Your task to perform on an android device: Open calendar and show me the first week of next month Image 0: 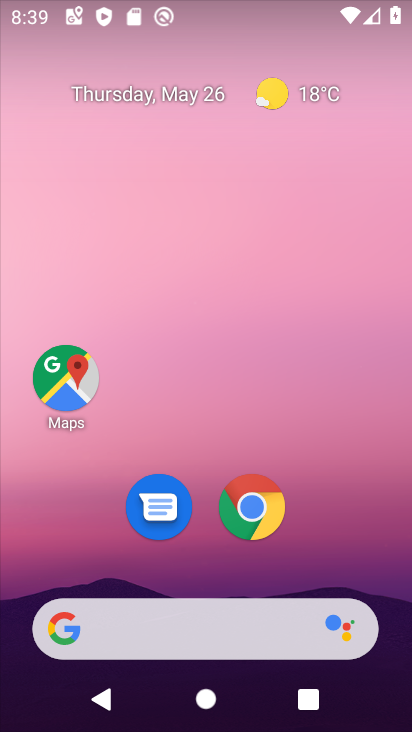
Step 0: drag from (265, 673) to (178, 204)
Your task to perform on an android device: Open calendar and show me the first week of next month Image 1: 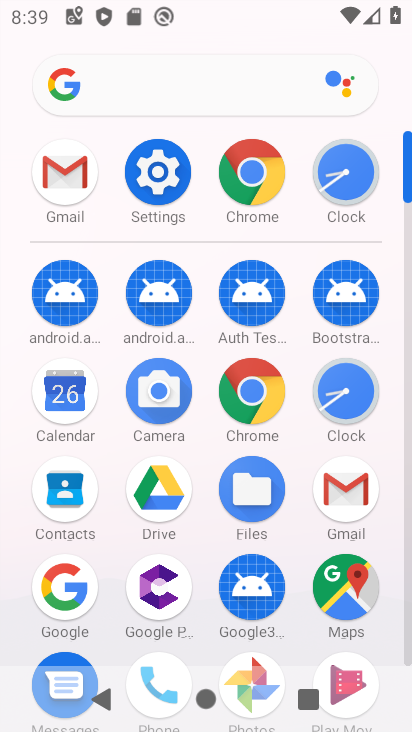
Step 1: click (63, 391)
Your task to perform on an android device: Open calendar and show me the first week of next month Image 2: 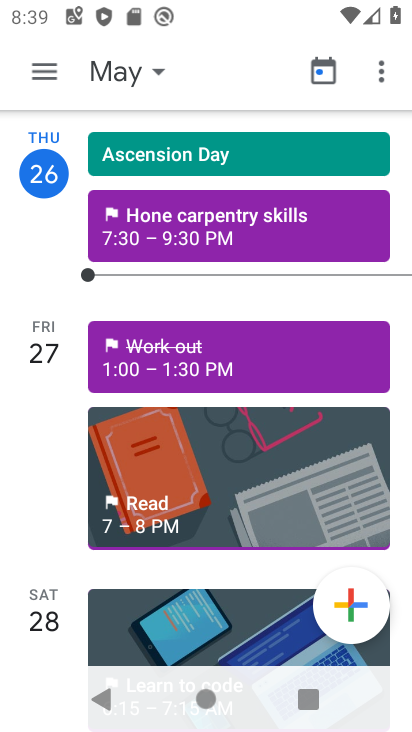
Step 2: click (33, 71)
Your task to perform on an android device: Open calendar and show me the first week of next month Image 3: 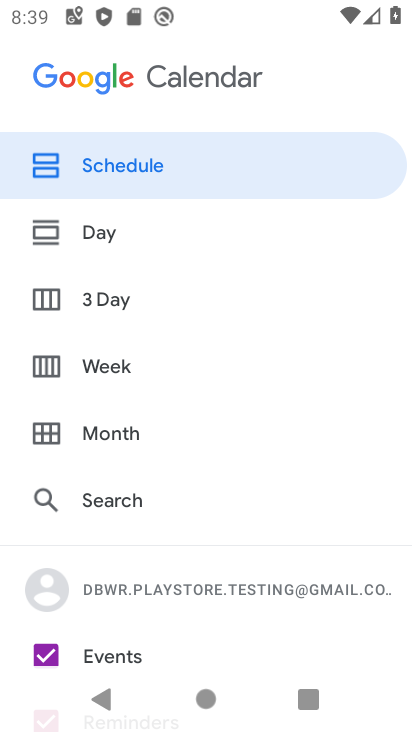
Step 3: click (141, 433)
Your task to perform on an android device: Open calendar and show me the first week of next month Image 4: 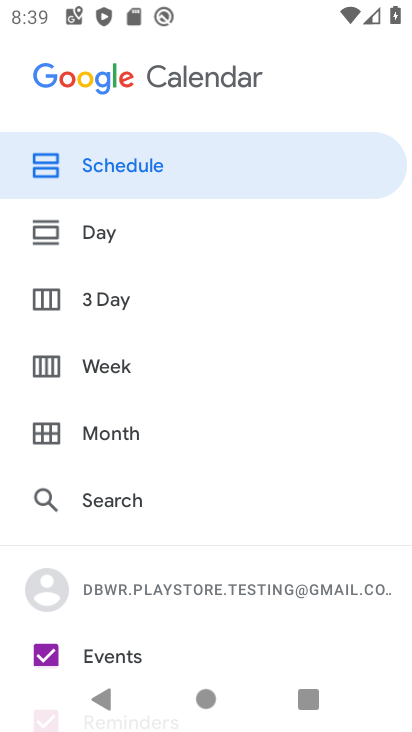
Step 4: click (140, 439)
Your task to perform on an android device: Open calendar and show me the first week of next month Image 5: 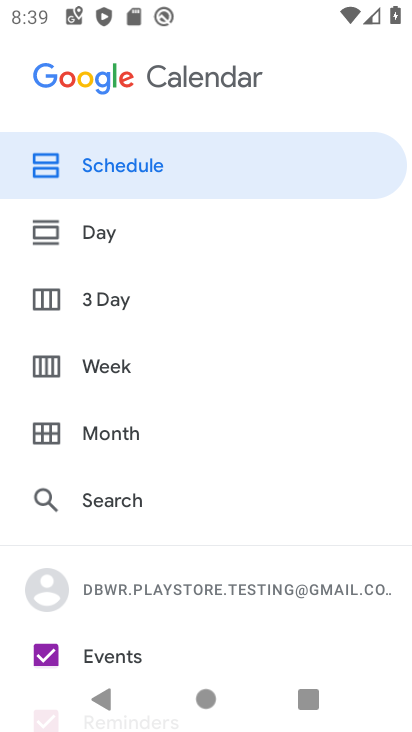
Step 5: click (140, 439)
Your task to perform on an android device: Open calendar and show me the first week of next month Image 6: 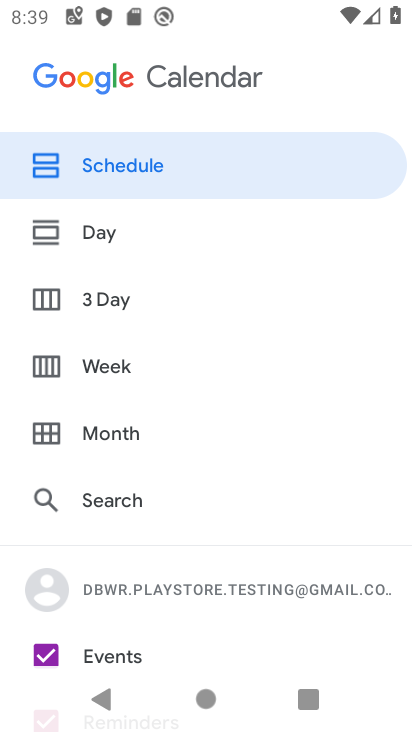
Step 6: click (140, 439)
Your task to perform on an android device: Open calendar and show me the first week of next month Image 7: 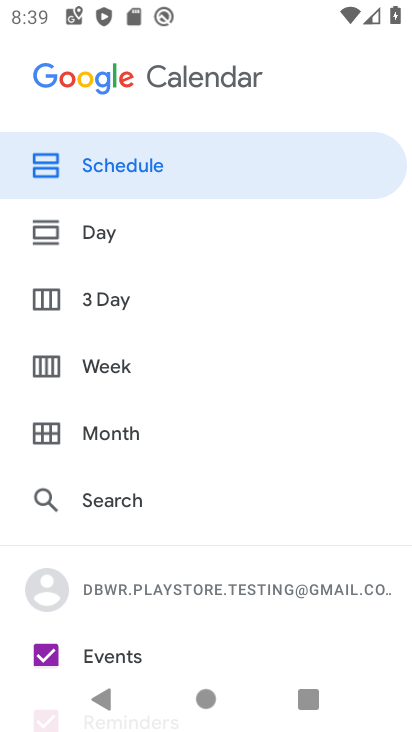
Step 7: click (119, 434)
Your task to perform on an android device: Open calendar and show me the first week of next month Image 8: 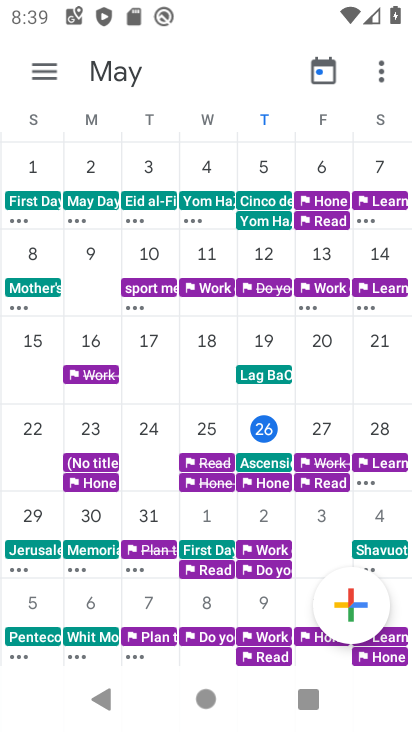
Step 8: drag from (363, 375) to (5, 361)
Your task to perform on an android device: Open calendar and show me the first week of next month Image 9: 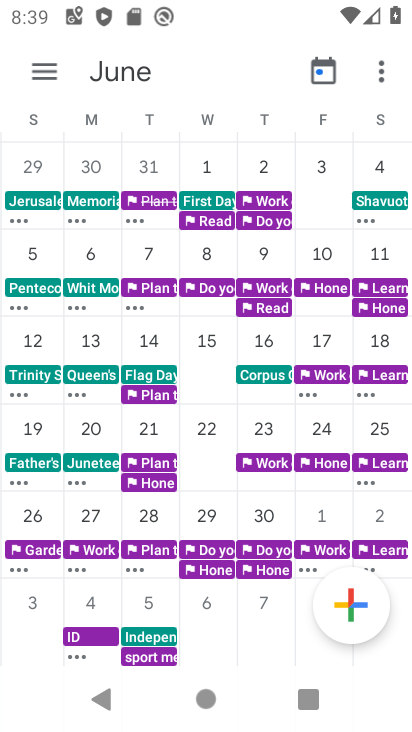
Step 9: click (199, 177)
Your task to perform on an android device: Open calendar and show me the first week of next month Image 10: 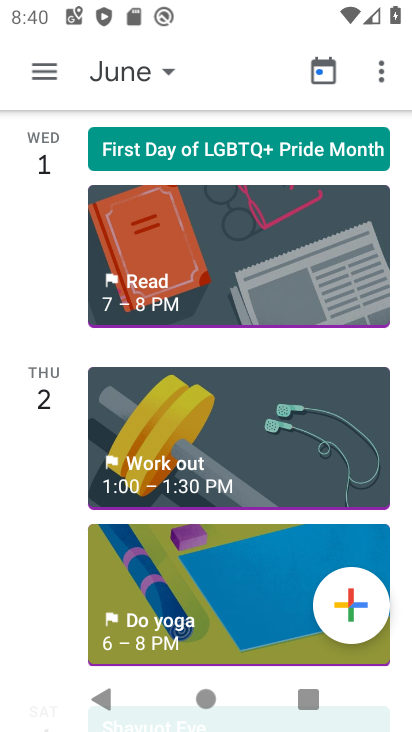
Step 10: task complete